Your task to perform on an android device: Open eBay Image 0: 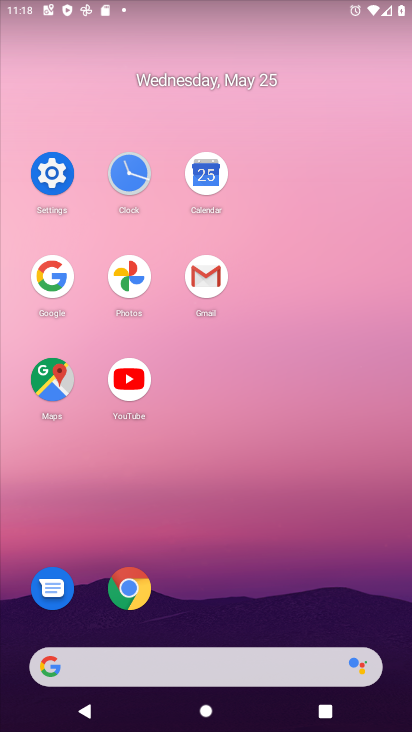
Step 0: click (122, 592)
Your task to perform on an android device: Open eBay Image 1: 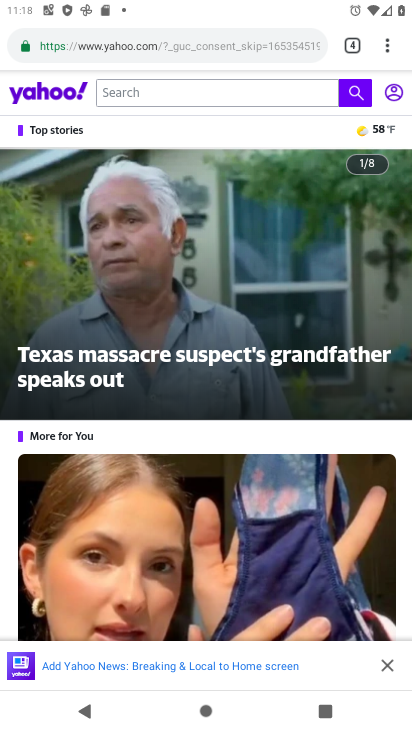
Step 1: click (355, 42)
Your task to perform on an android device: Open eBay Image 2: 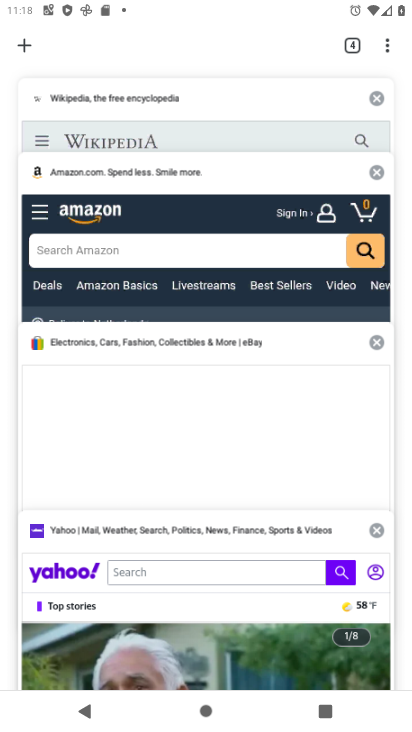
Step 2: drag from (229, 203) to (218, 505)
Your task to perform on an android device: Open eBay Image 3: 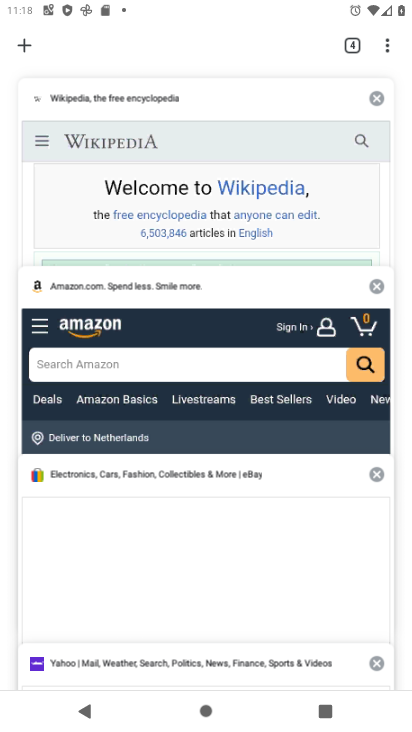
Step 3: click (202, 520)
Your task to perform on an android device: Open eBay Image 4: 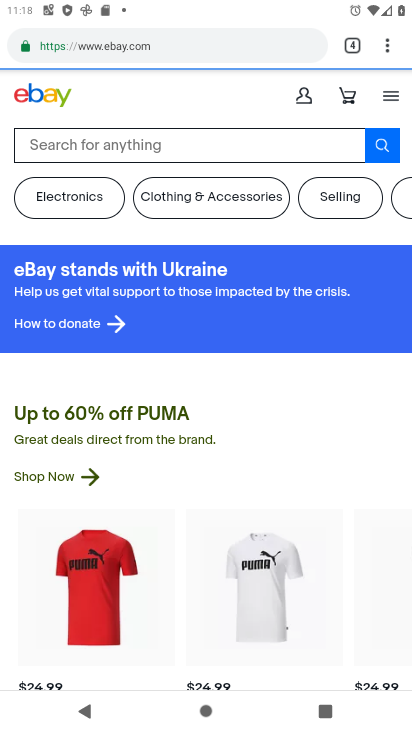
Step 4: task complete